Your task to perform on an android device: star an email in the gmail app Image 0: 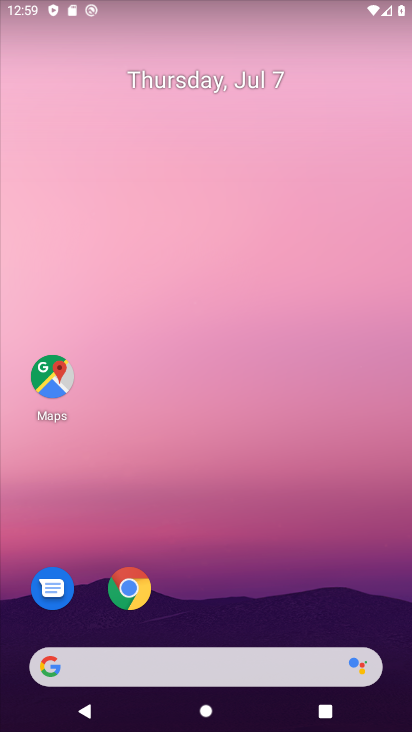
Step 0: drag from (242, 612) to (247, 401)
Your task to perform on an android device: star an email in the gmail app Image 1: 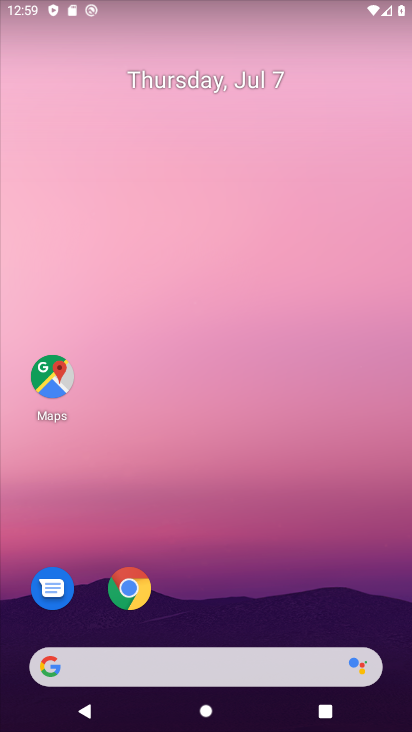
Step 1: drag from (287, 566) to (226, 8)
Your task to perform on an android device: star an email in the gmail app Image 2: 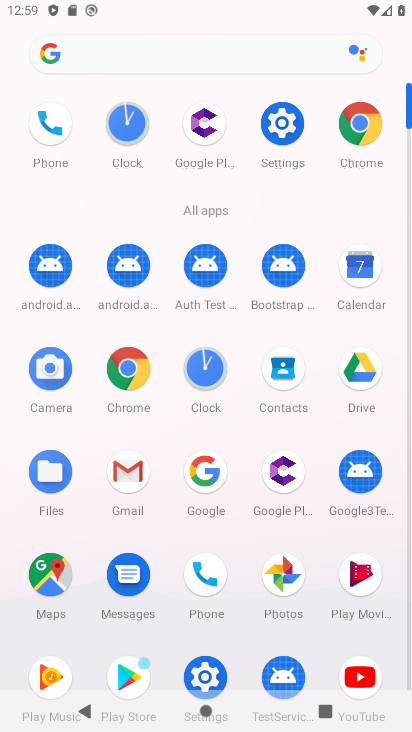
Step 2: click (129, 470)
Your task to perform on an android device: star an email in the gmail app Image 3: 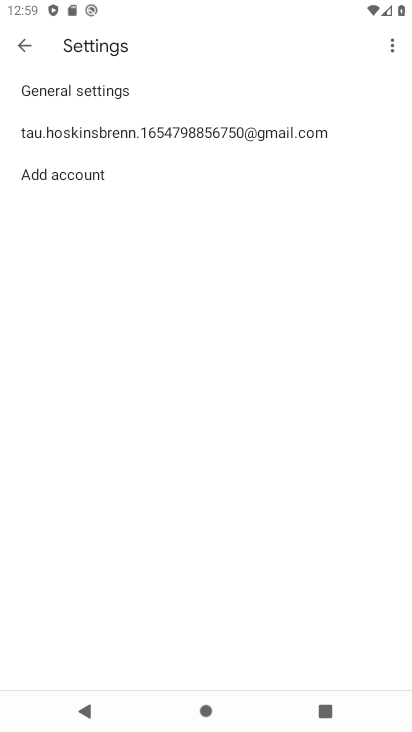
Step 3: click (48, 35)
Your task to perform on an android device: star an email in the gmail app Image 4: 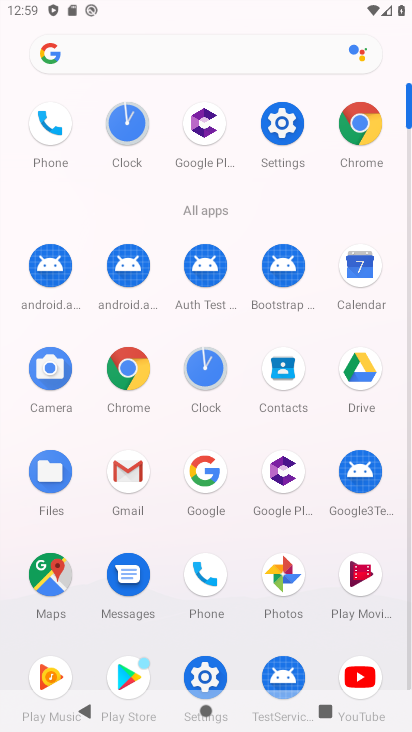
Step 4: click (119, 481)
Your task to perform on an android device: star an email in the gmail app Image 5: 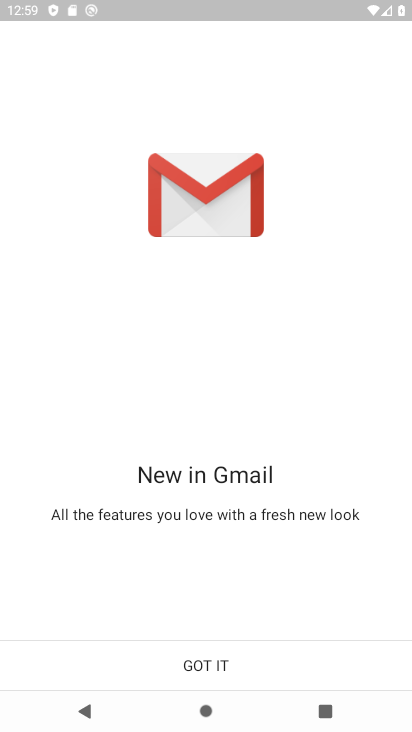
Step 5: click (185, 650)
Your task to perform on an android device: star an email in the gmail app Image 6: 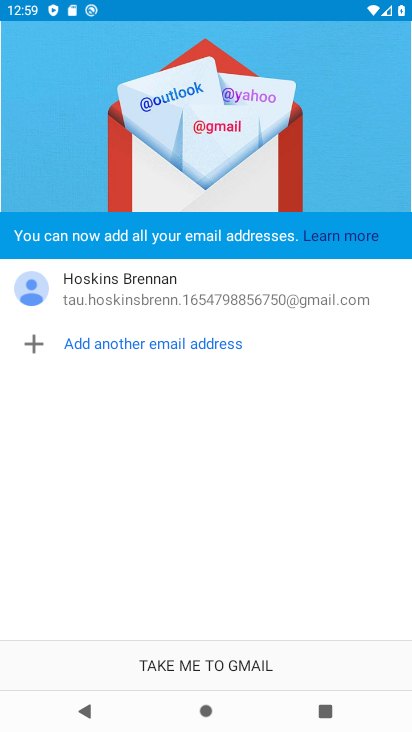
Step 6: click (185, 650)
Your task to perform on an android device: star an email in the gmail app Image 7: 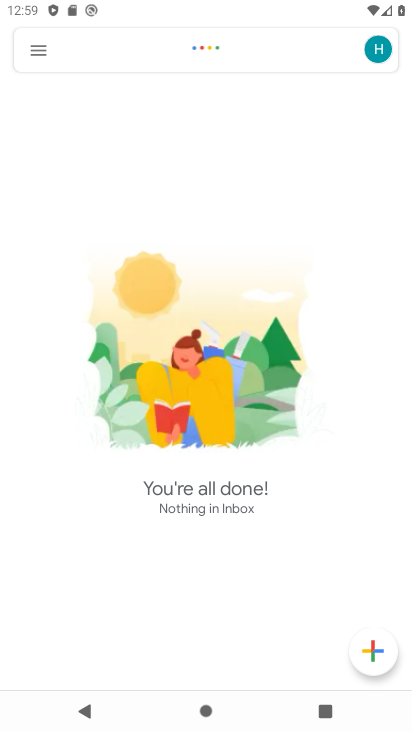
Step 7: click (27, 46)
Your task to perform on an android device: star an email in the gmail app Image 8: 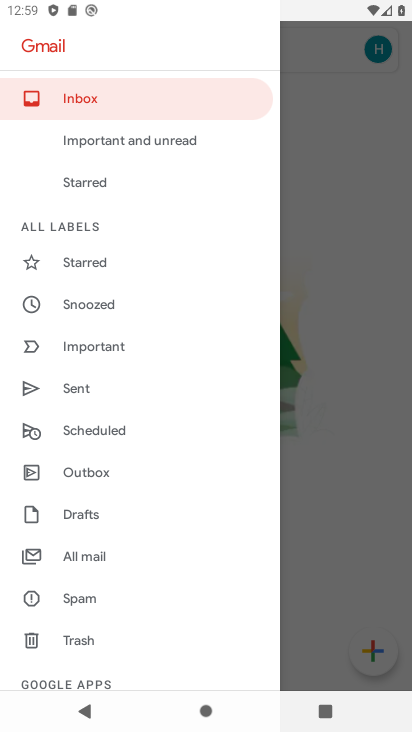
Step 8: click (123, 548)
Your task to perform on an android device: star an email in the gmail app Image 9: 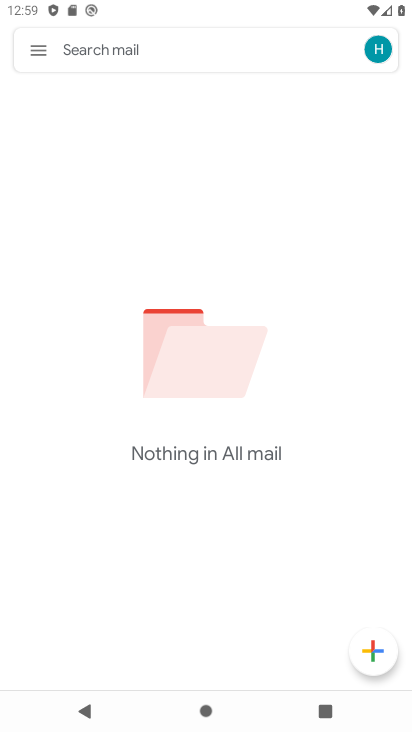
Step 9: task complete